Your task to perform on an android device: turn off wifi Image 0: 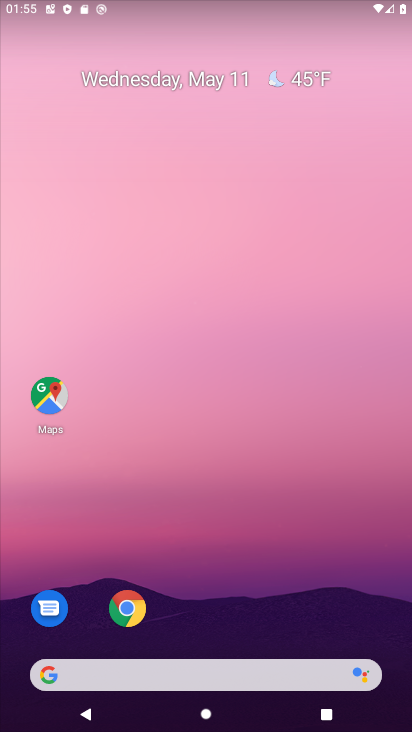
Step 0: drag from (200, 21) to (203, 468)
Your task to perform on an android device: turn off wifi Image 1: 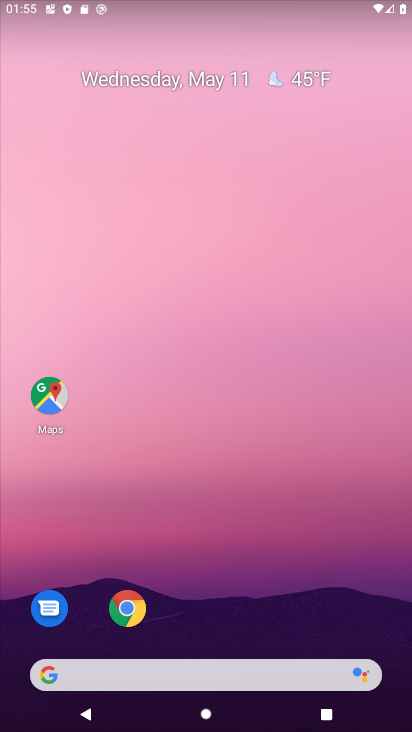
Step 1: drag from (197, 9) to (203, 520)
Your task to perform on an android device: turn off wifi Image 2: 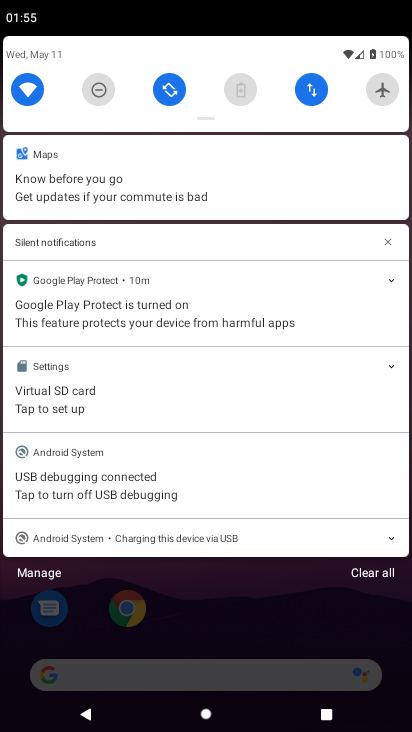
Step 2: click (30, 87)
Your task to perform on an android device: turn off wifi Image 3: 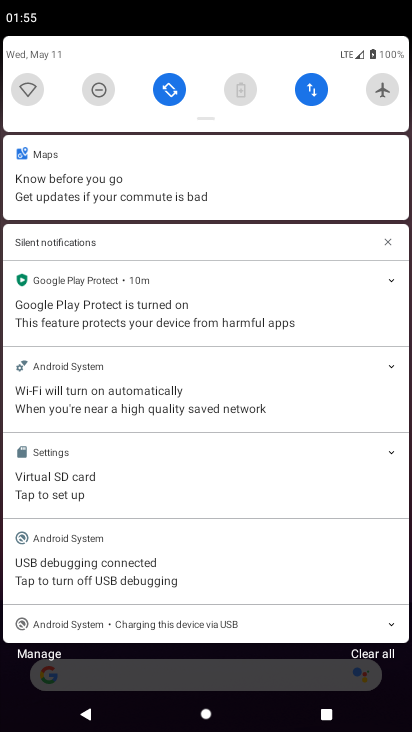
Step 3: click (369, 656)
Your task to perform on an android device: turn off wifi Image 4: 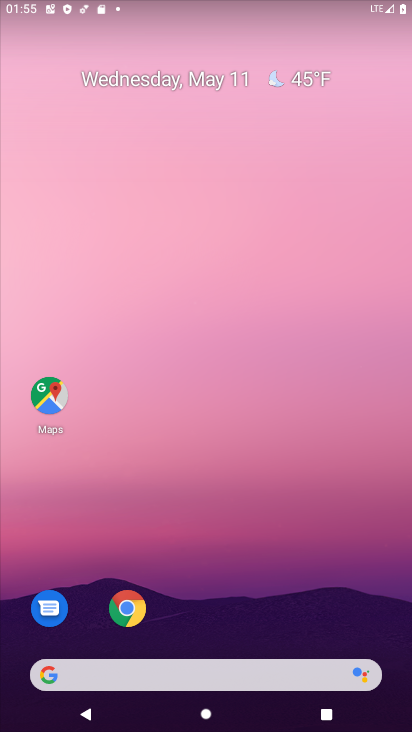
Step 4: task complete